Your task to perform on an android device: Check the weather Image 0: 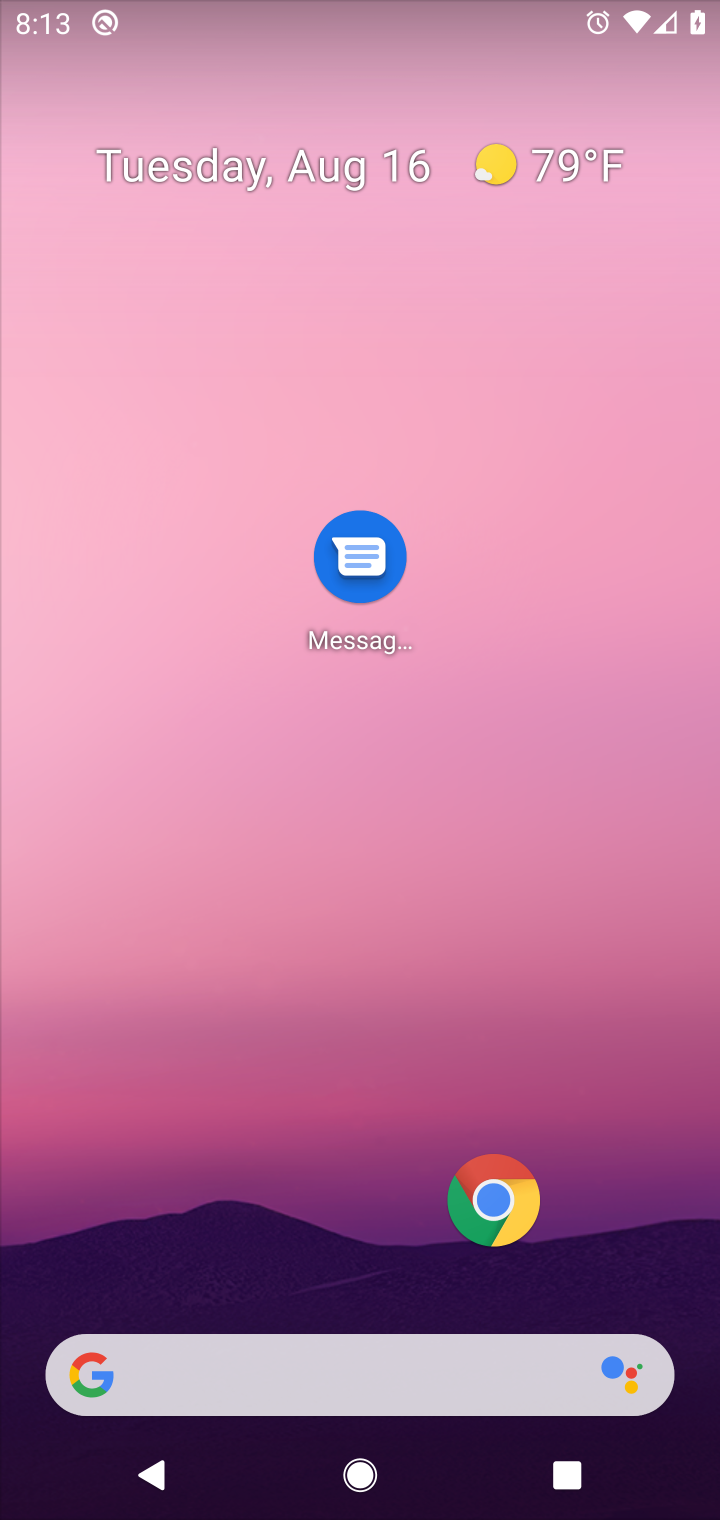
Step 0: click (311, 1388)
Your task to perform on an android device: Check the weather Image 1: 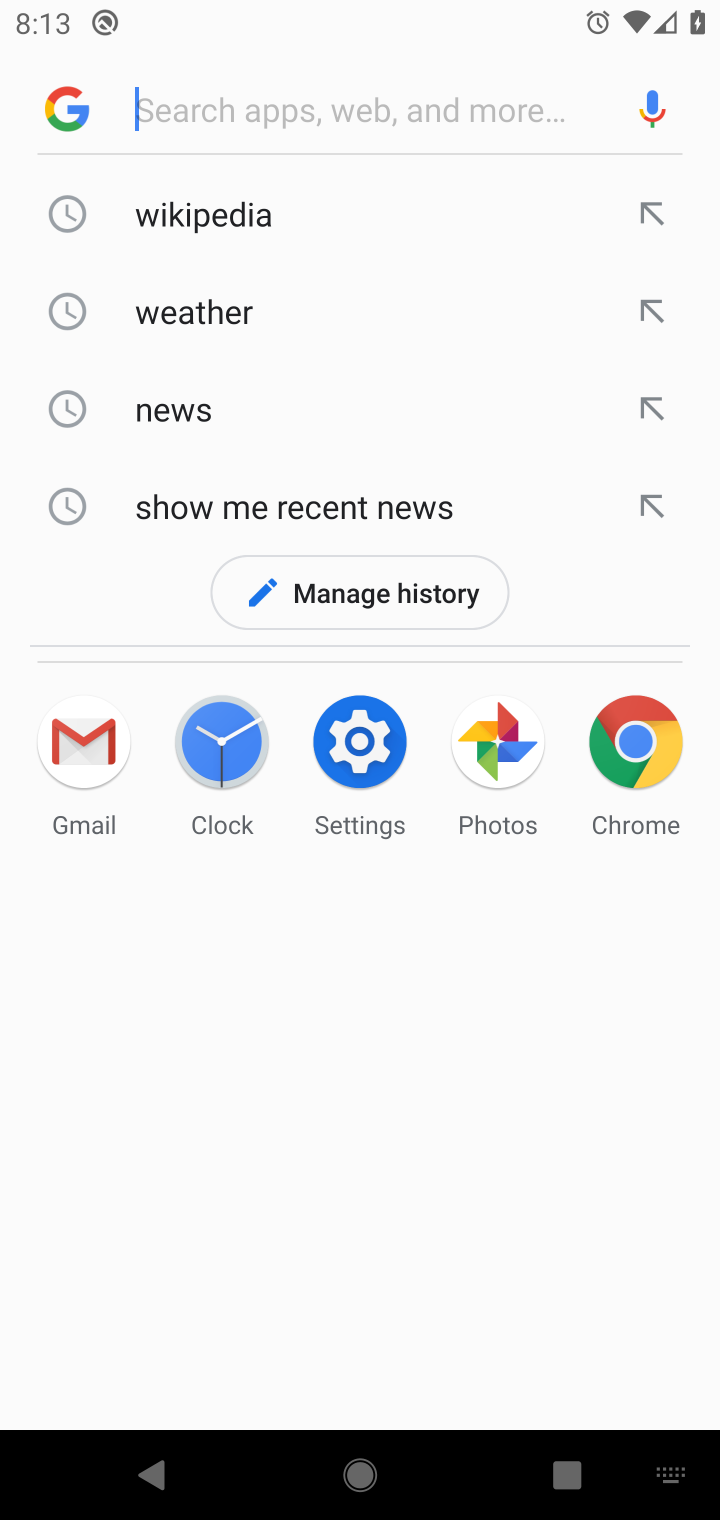
Step 1: type "Check the weather"
Your task to perform on an android device: Check the weather Image 2: 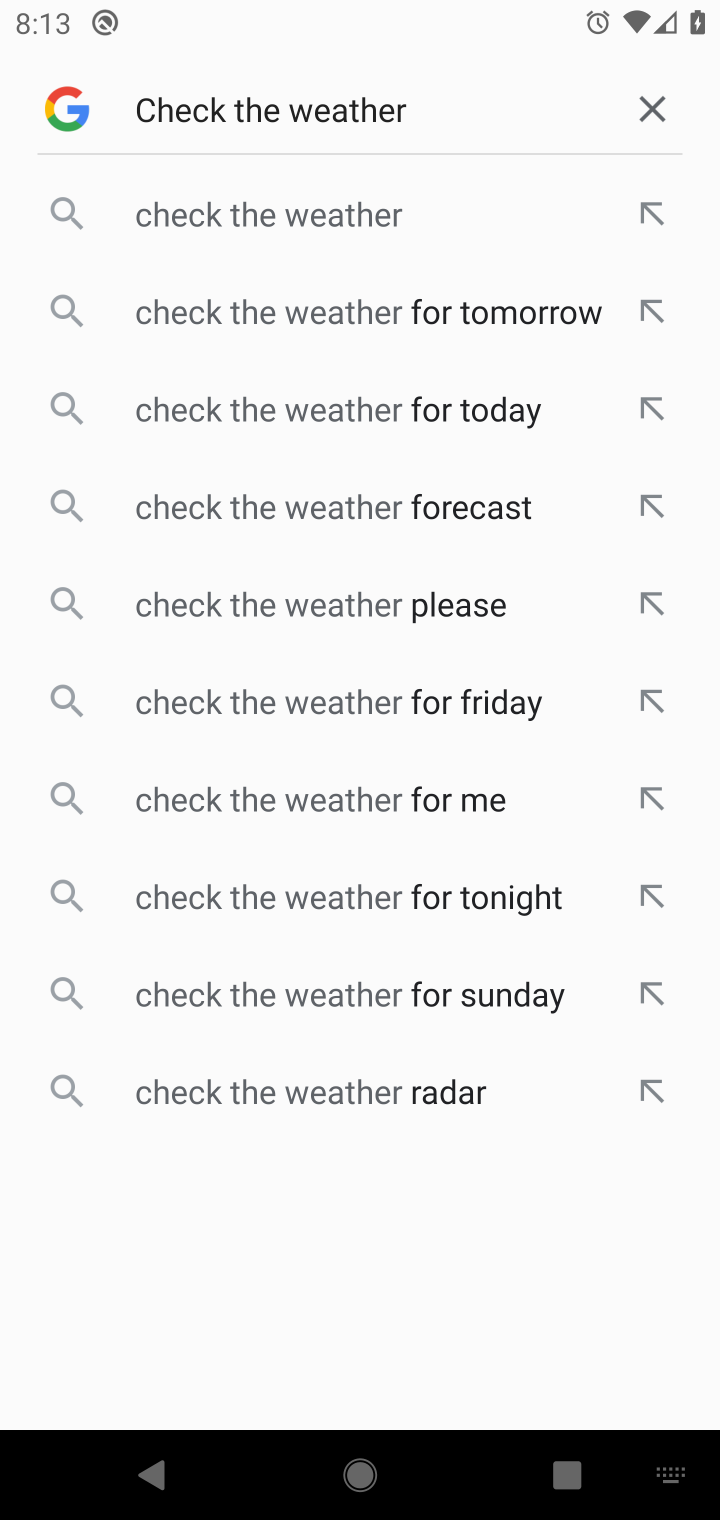
Step 2: click (234, 228)
Your task to perform on an android device: Check the weather Image 3: 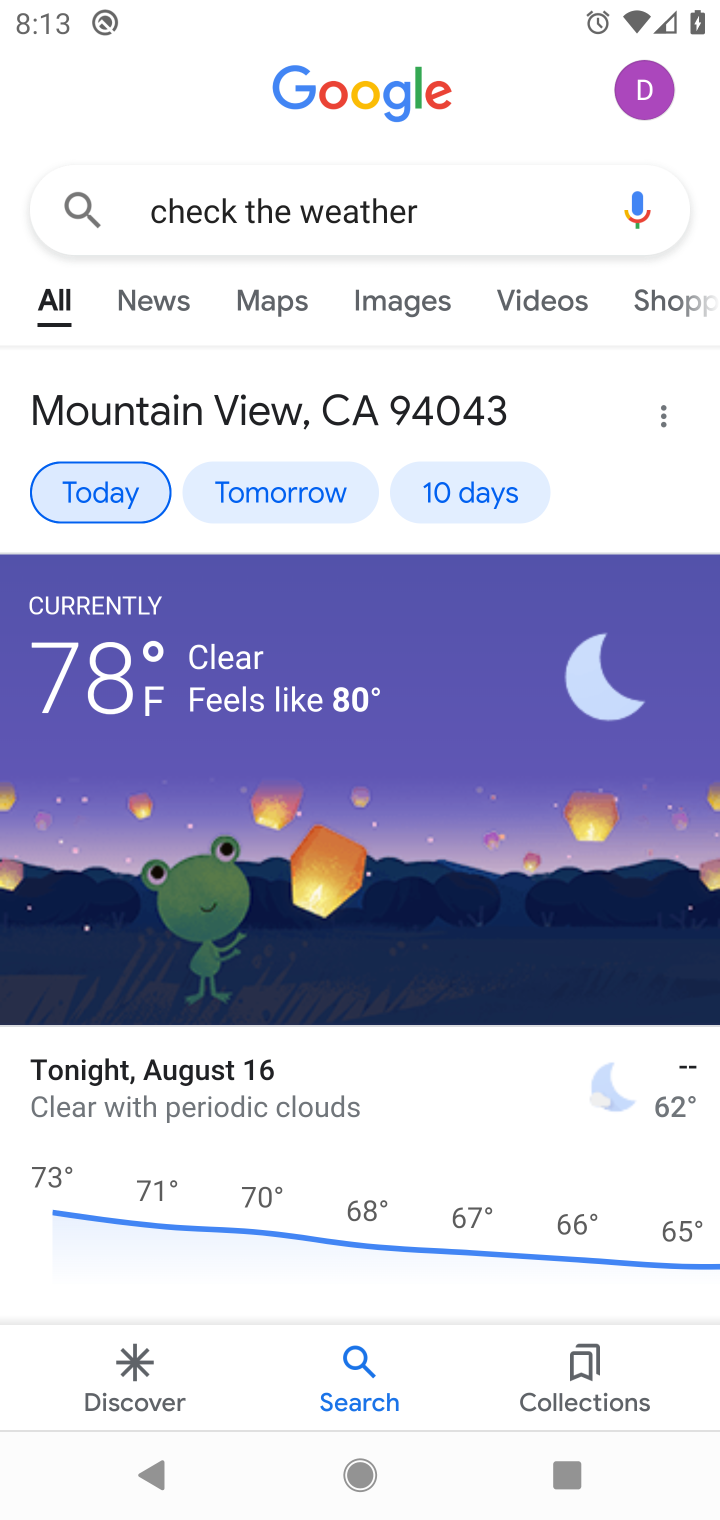
Step 3: task complete